Your task to perform on an android device: stop showing notifications on the lock screen Image 0: 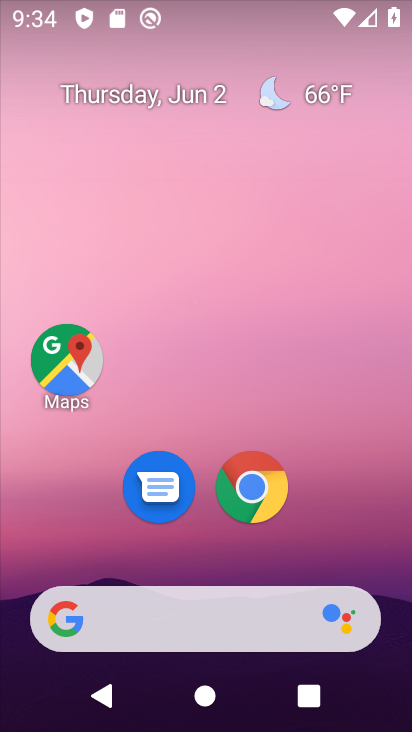
Step 0: drag from (249, 730) to (242, 102)
Your task to perform on an android device: stop showing notifications on the lock screen Image 1: 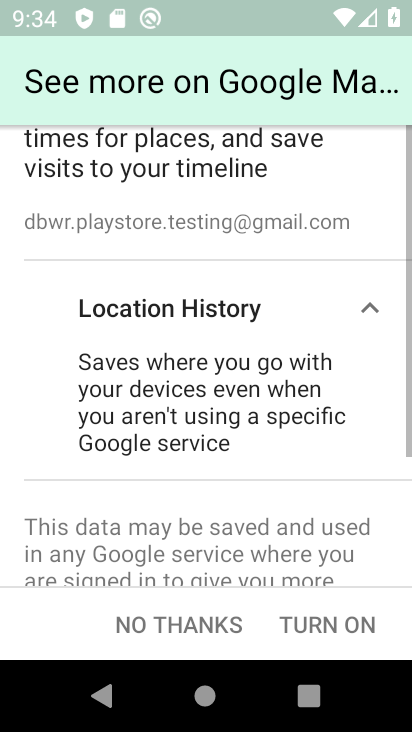
Step 1: press home button
Your task to perform on an android device: stop showing notifications on the lock screen Image 2: 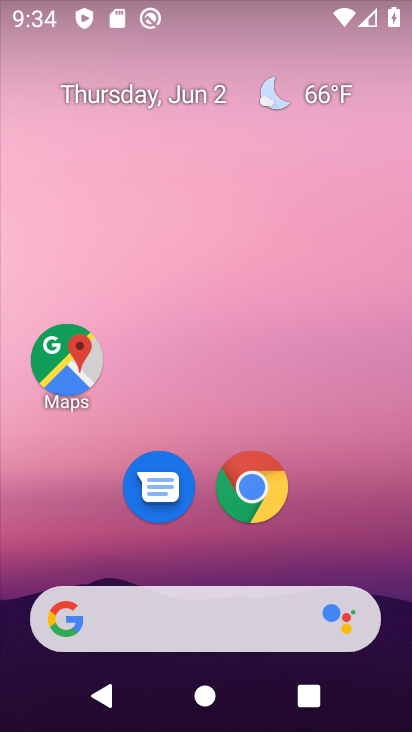
Step 2: drag from (237, 726) to (237, 116)
Your task to perform on an android device: stop showing notifications on the lock screen Image 3: 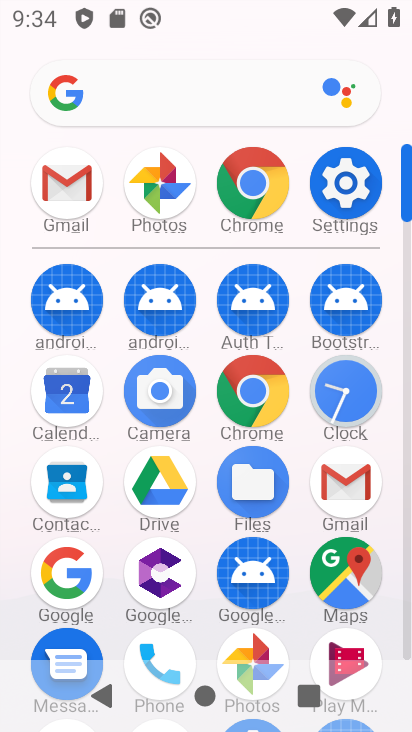
Step 3: click (345, 174)
Your task to perform on an android device: stop showing notifications on the lock screen Image 4: 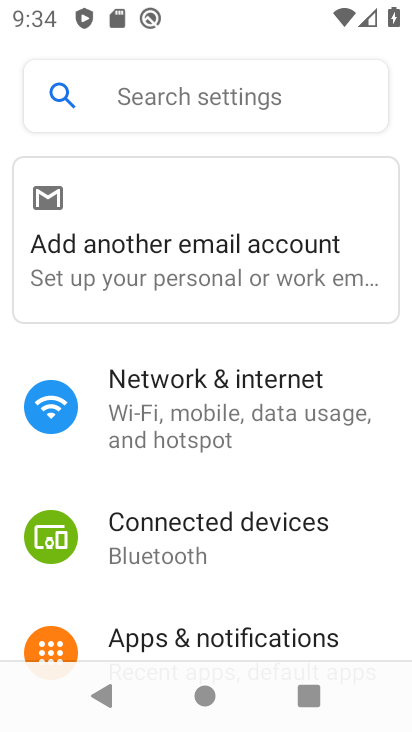
Step 4: click (224, 637)
Your task to perform on an android device: stop showing notifications on the lock screen Image 5: 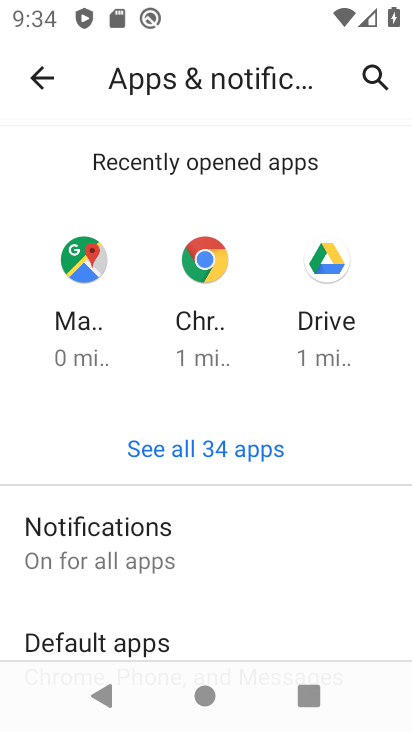
Step 5: click (113, 544)
Your task to perform on an android device: stop showing notifications on the lock screen Image 6: 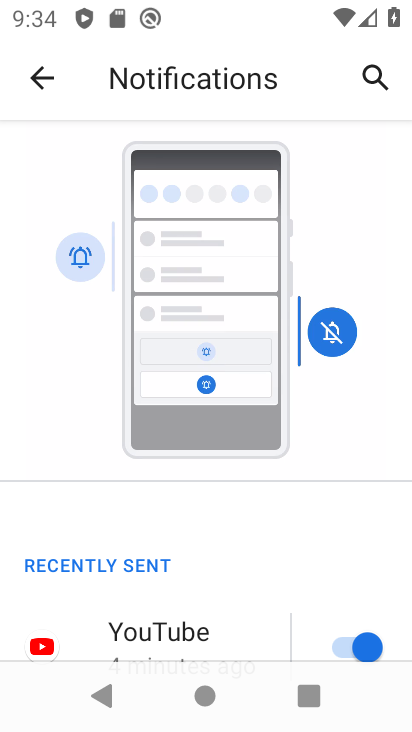
Step 6: drag from (234, 647) to (235, 211)
Your task to perform on an android device: stop showing notifications on the lock screen Image 7: 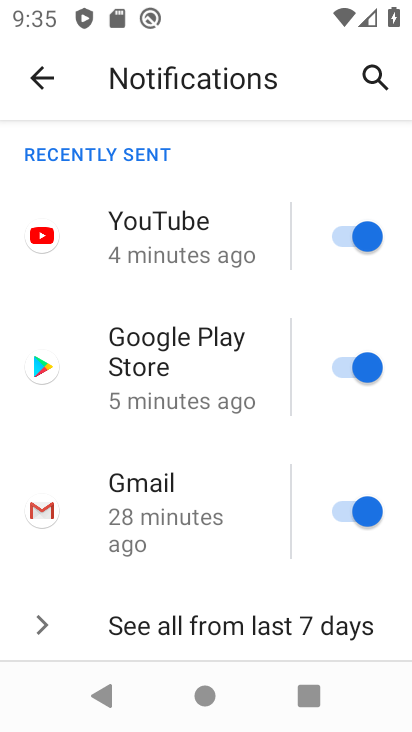
Step 7: drag from (234, 646) to (235, 222)
Your task to perform on an android device: stop showing notifications on the lock screen Image 8: 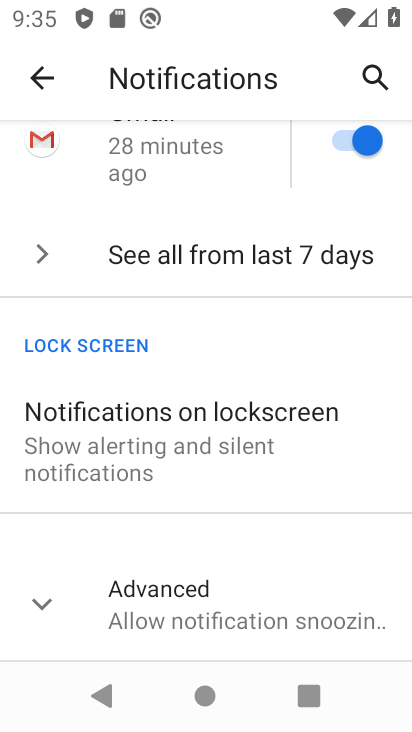
Step 8: click (130, 441)
Your task to perform on an android device: stop showing notifications on the lock screen Image 9: 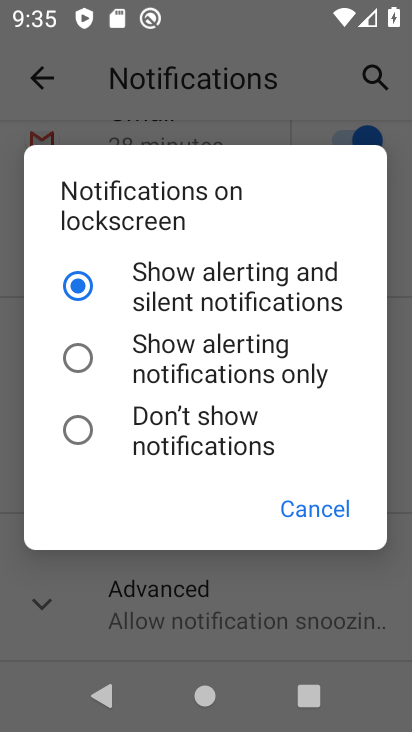
Step 9: click (81, 434)
Your task to perform on an android device: stop showing notifications on the lock screen Image 10: 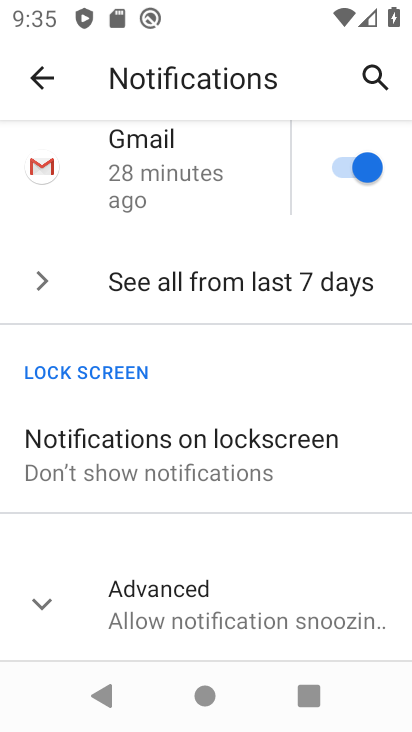
Step 10: task complete